Your task to perform on an android device: Go to Wikipedia Image 0: 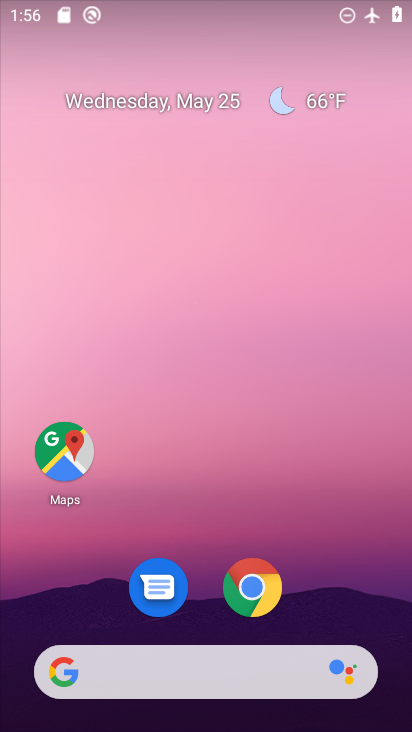
Step 0: drag from (356, 578) to (377, 275)
Your task to perform on an android device: Go to Wikipedia Image 1: 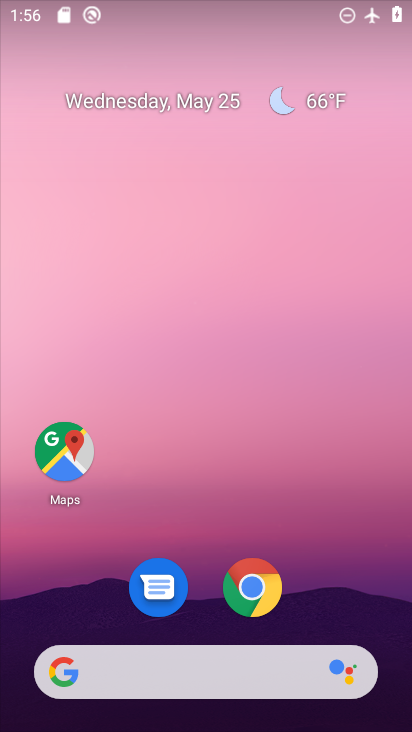
Step 1: drag from (384, 612) to (366, 130)
Your task to perform on an android device: Go to Wikipedia Image 2: 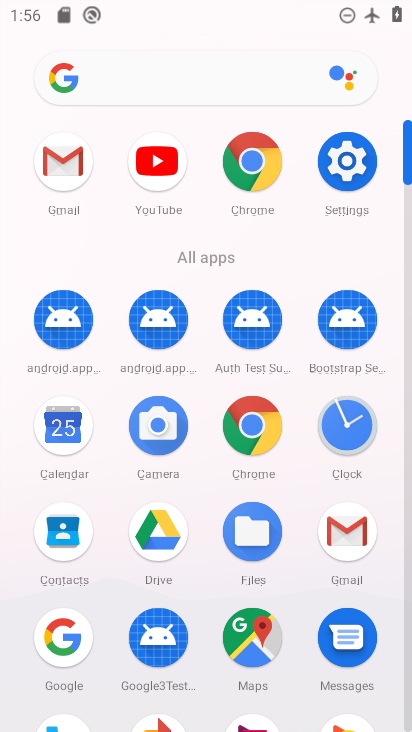
Step 2: click (263, 443)
Your task to perform on an android device: Go to Wikipedia Image 3: 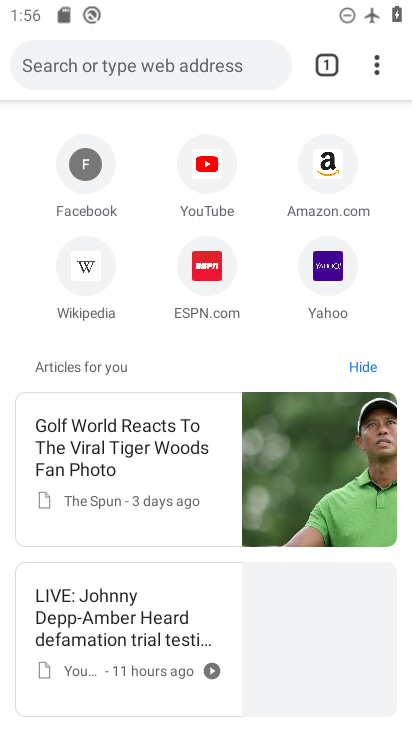
Step 3: click (95, 312)
Your task to perform on an android device: Go to Wikipedia Image 4: 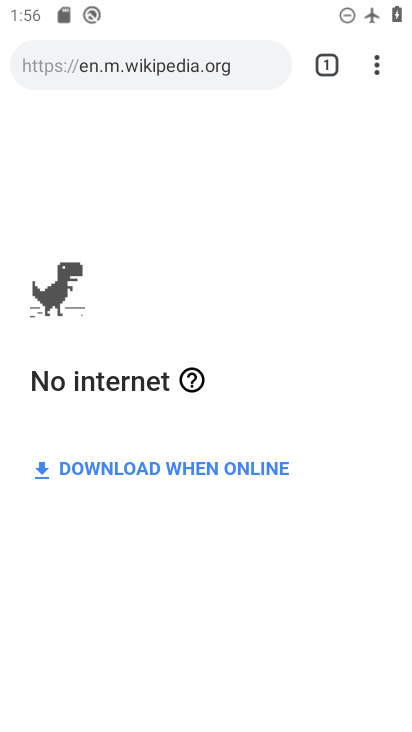
Step 4: task complete